Your task to perform on an android device: Open Amazon Image 0: 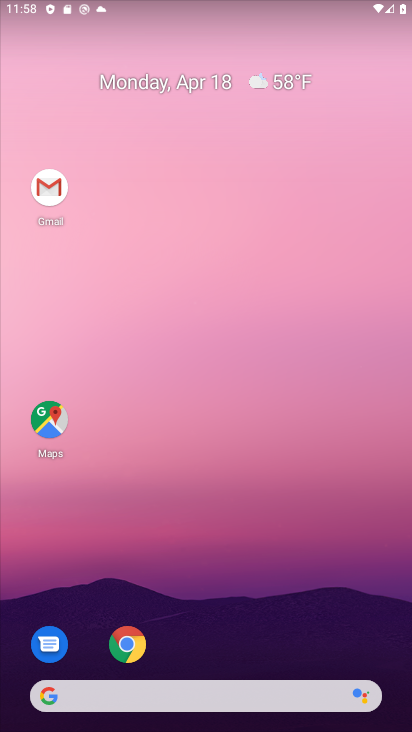
Step 0: click (122, 643)
Your task to perform on an android device: Open Amazon Image 1: 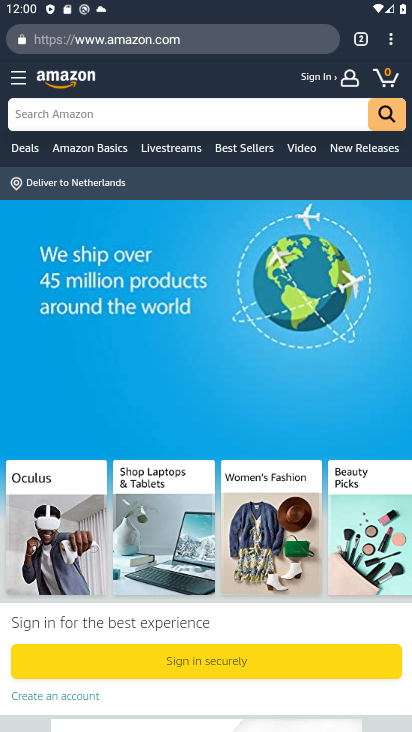
Step 1: task complete